Your task to perform on an android device: turn on sleep mode Image 0: 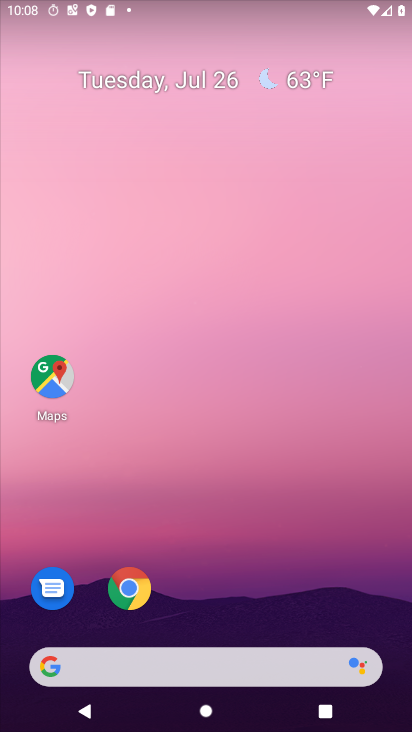
Step 0: drag from (213, 614) to (269, 4)
Your task to perform on an android device: turn on sleep mode Image 1: 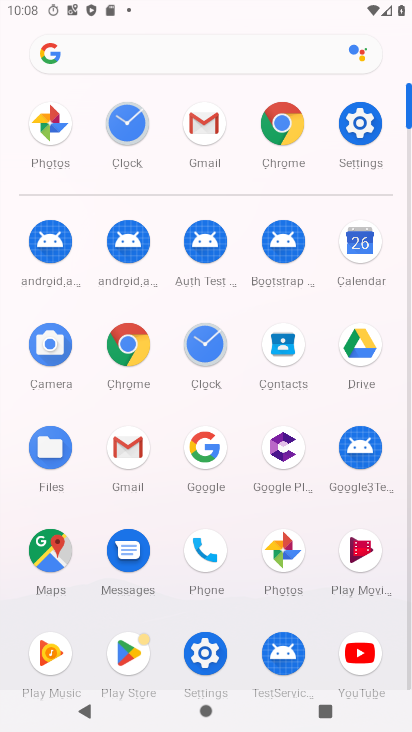
Step 1: click (364, 134)
Your task to perform on an android device: turn on sleep mode Image 2: 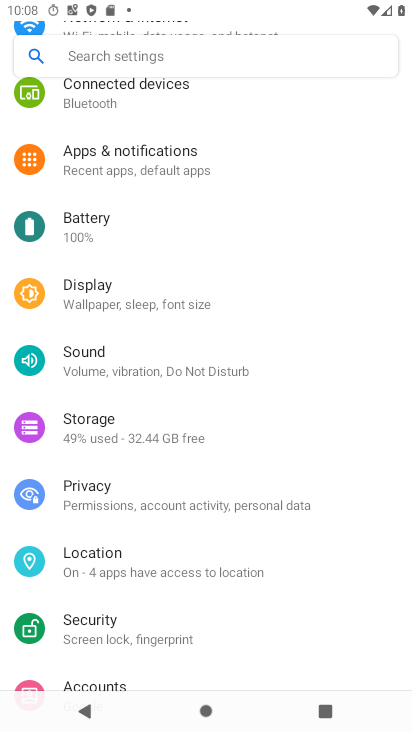
Step 2: task complete